Your task to perform on an android device: turn off location history Image 0: 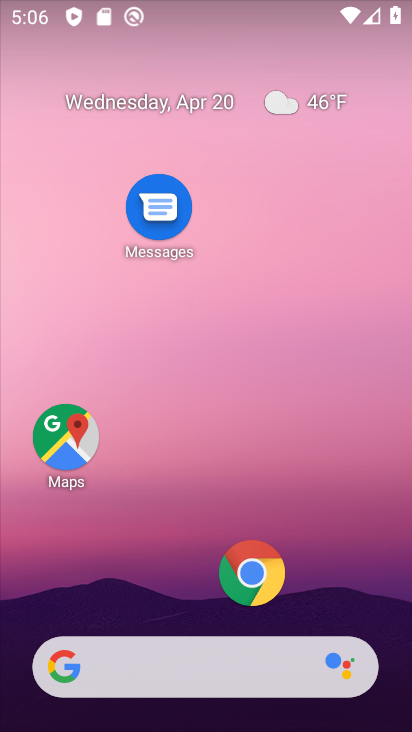
Step 0: drag from (192, 574) to (231, 66)
Your task to perform on an android device: turn off location history Image 1: 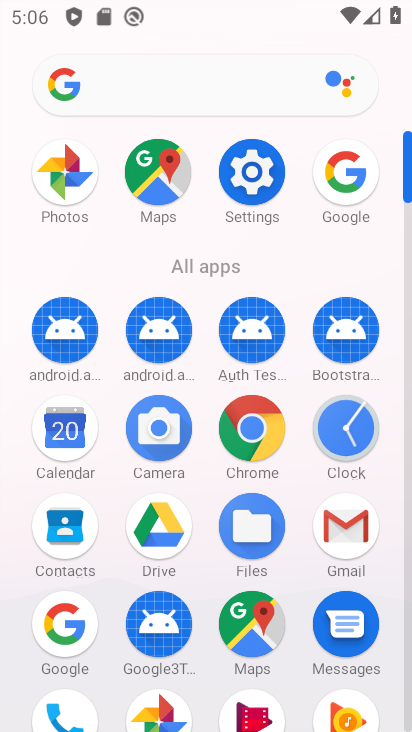
Step 1: click (257, 176)
Your task to perform on an android device: turn off location history Image 2: 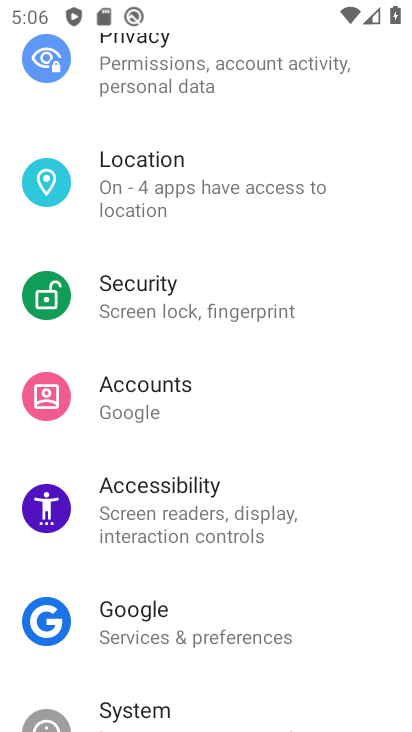
Step 2: click (151, 210)
Your task to perform on an android device: turn off location history Image 3: 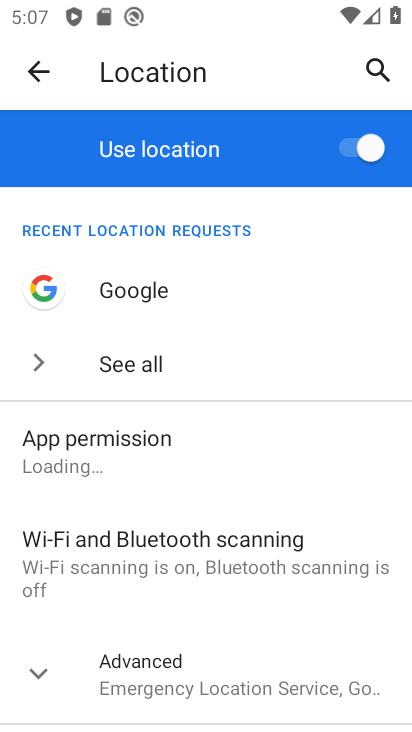
Step 3: drag from (210, 607) to (237, 328)
Your task to perform on an android device: turn off location history Image 4: 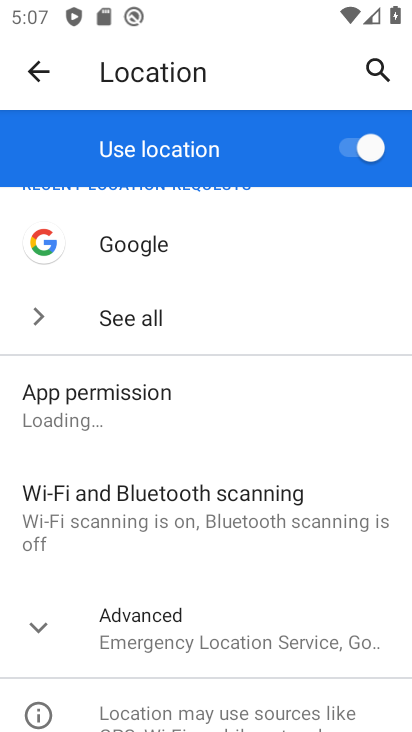
Step 4: drag from (231, 601) to (219, 366)
Your task to perform on an android device: turn off location history Image 5: 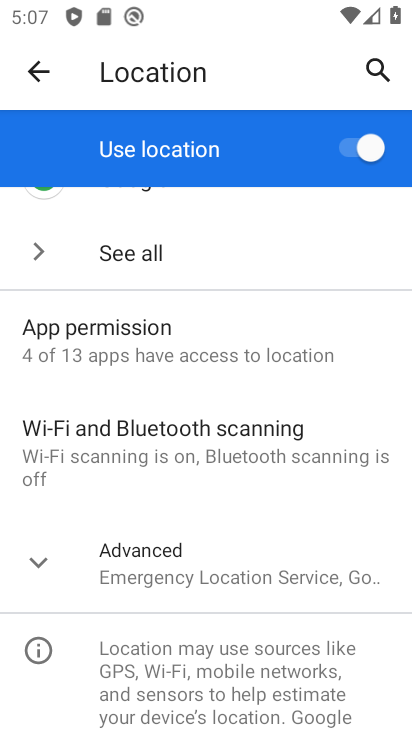
Step 5: click (192, 548)
Your task to perform on an android device: turn off location history Image 6: 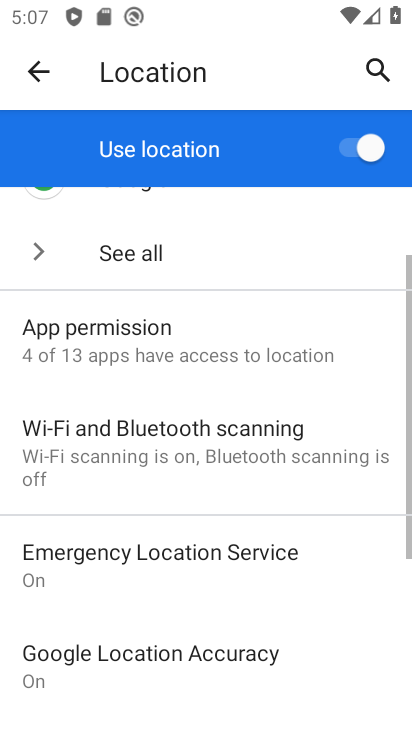
Step 6: drag from (231, 547) to (256, 329)
Your task to perform on an android device: turn off location history Image 7: 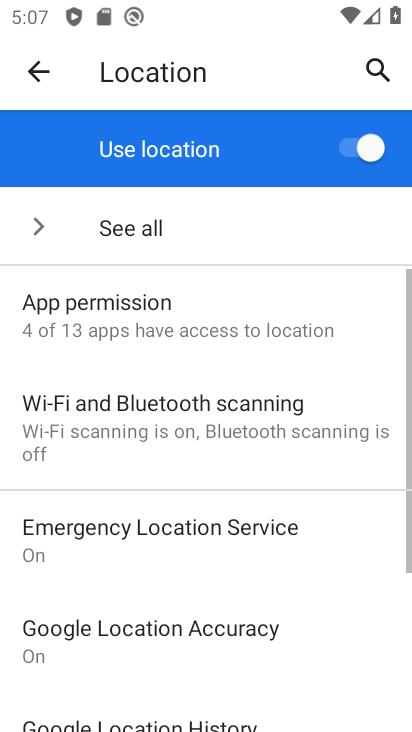
Step 7: drag from (251, 617) to (185, 627)
Your task to perform on an android device: turn off location history Image 8: 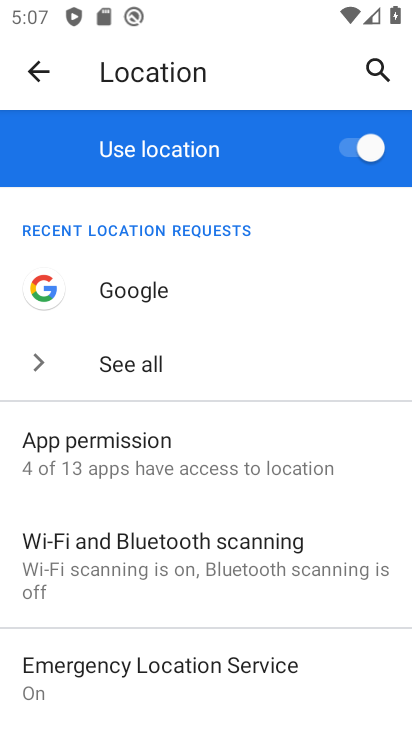
Step 8: drag from (192, 621) to (235, 323)
Your task to perform on an android device: turn off location history Image 9: 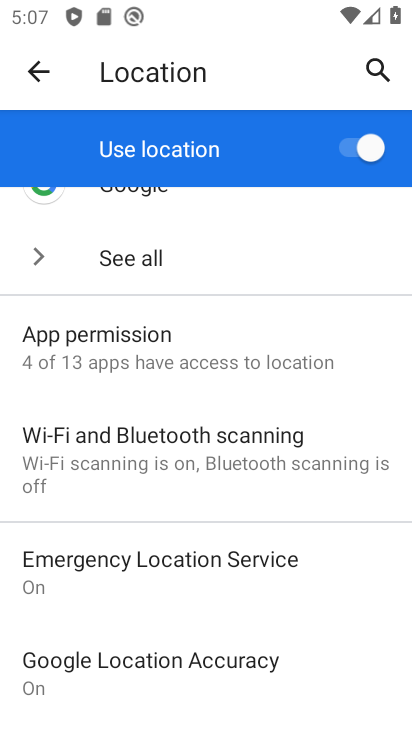
Step 9: drag from (216, 634) to (234, 377)
Your task to perform on an android device: turn off location history Image 10: 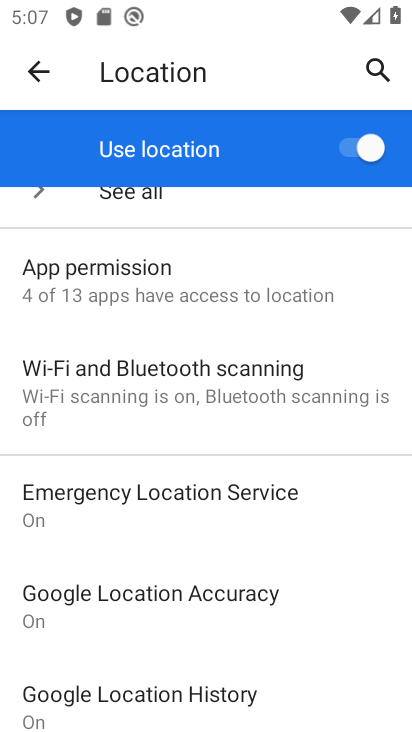
Step 10: click (196, 689)
Your task to perform on an android device: turn off location history Image 11: 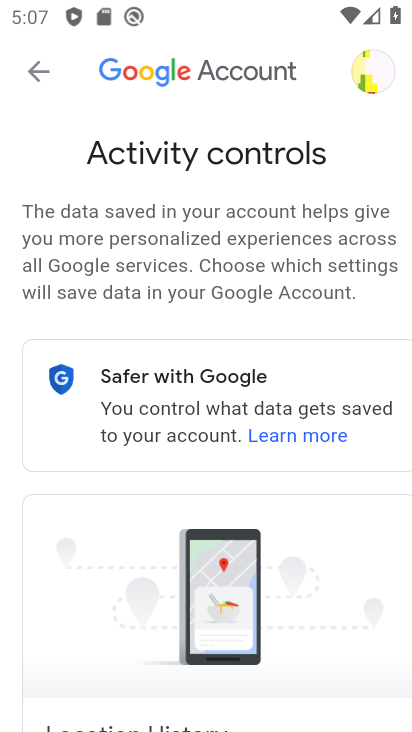
Step 11: drag from (297, 611) to (289, 282)
Your task to perform on an android device: turn off location history Image 12: 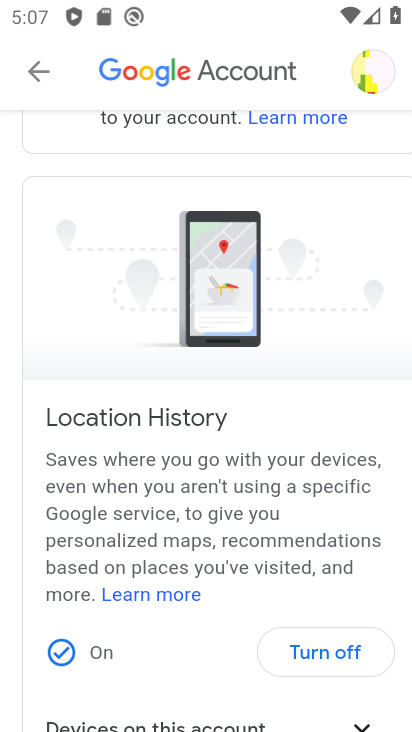
Step 12: click (319, 645)
Your task to perform on an android device: turn off location history Image 13: 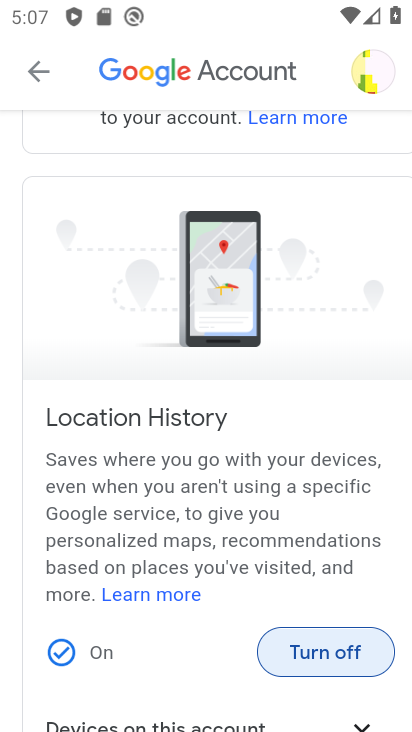
Step 13: click (305, 659)
Your task to perform on an android device: turn off location history Image 14: 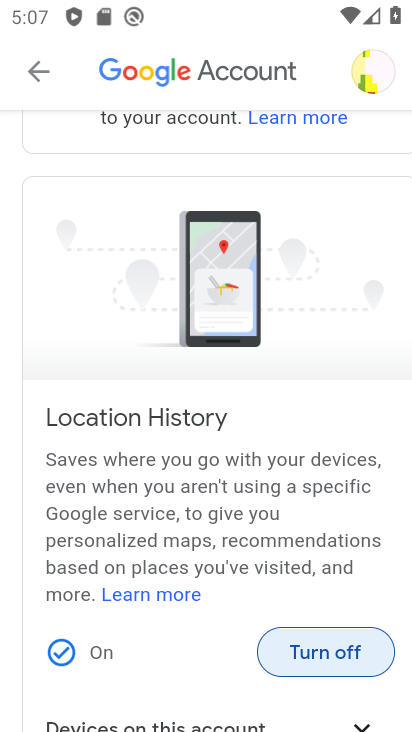
Step 14: click (308, 655)
Your task to perform on an android device: turn off location history Image 15: 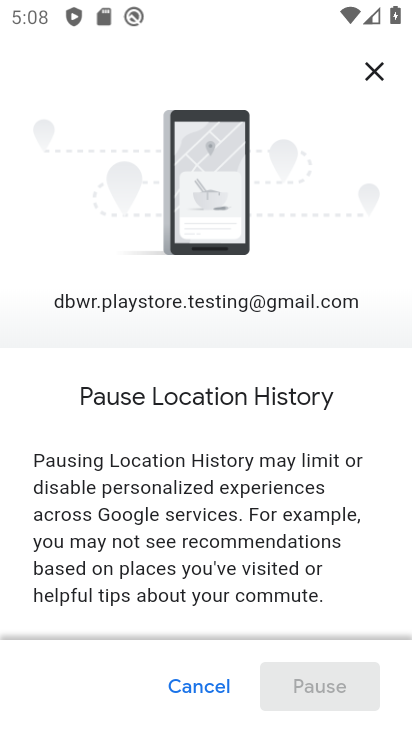
Step 15: drag from (293, 365) to (292, 228)
Your task to perform on an android device: turn off location history Image 16: 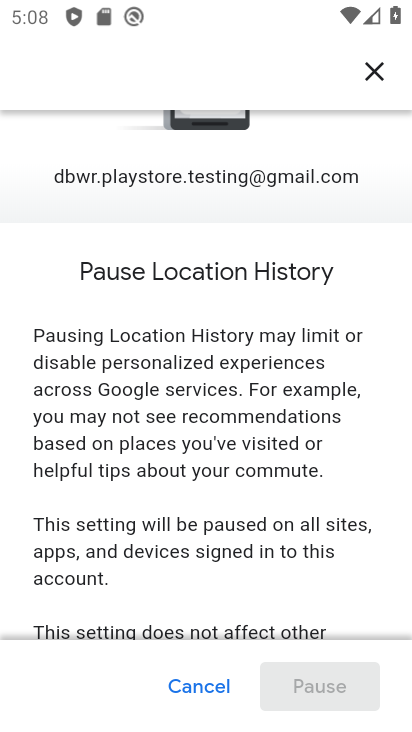
Step 16: click (258, 231)
Your task to perform on an android device: turn off location history Image 17: 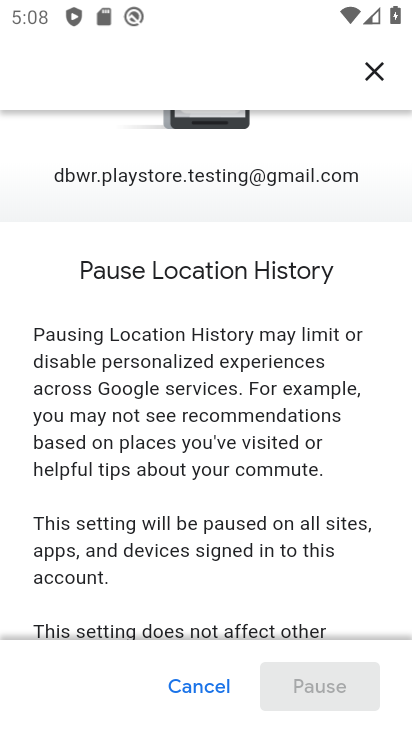
Step 17: drag from (273, 452) to (276, 203)
Your task to perform on an android device: turn off location history Image 18: 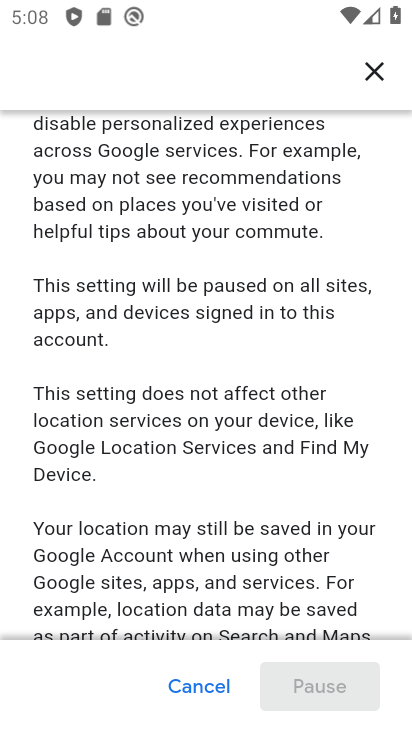
Step 18: drag from (291, 467) to (291, 232)
Your task to perform on an android device: turn off location history Image 19: 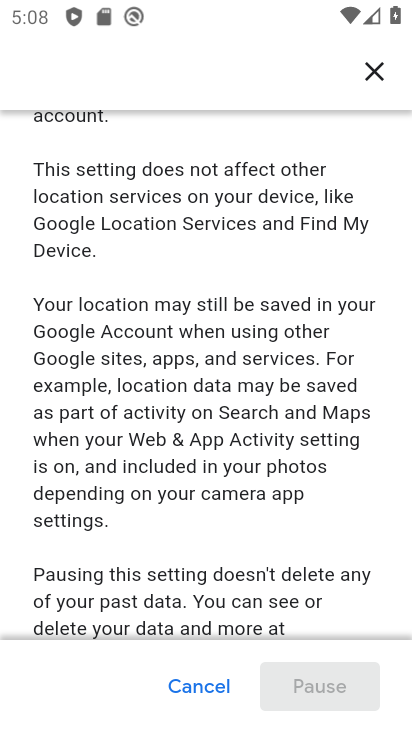
Step 19: drag from (257, 534) to (259, 227)
Your task to perform on an android device: turn off location history Image 20: 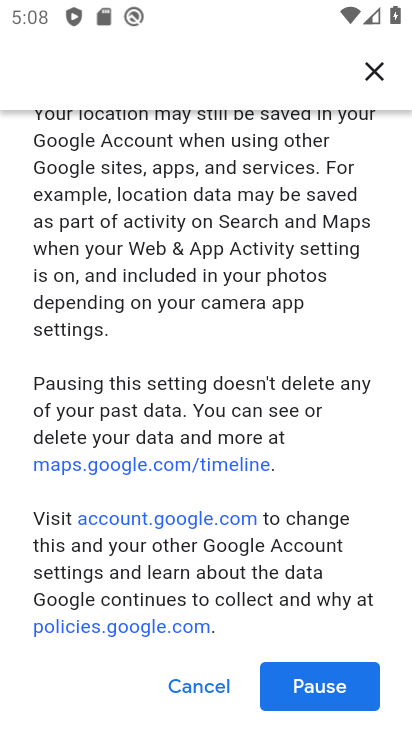
Step 20: drag from (276, 474) to (276, 241)
Your task to perform on an android device: turn off location history Image 21: 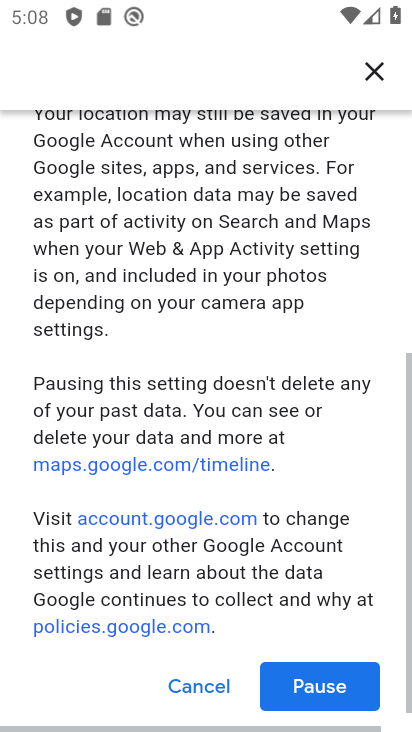
Step 21: click (287, 683)
Your task to perform on an android device: turn off location history Image 22: 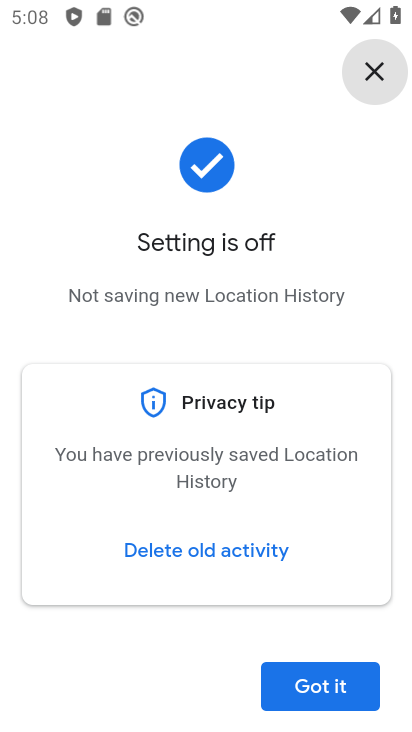
Step 22: task complete